Your task to perform on an android device: turn off location history Image 0: 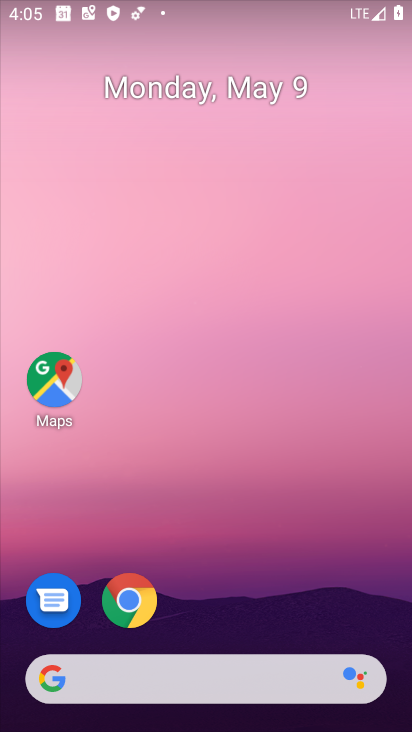
Step 0: drag from (313, 613) to (352, 8)
Your task to perform on an android device: turn off location history Image 1: 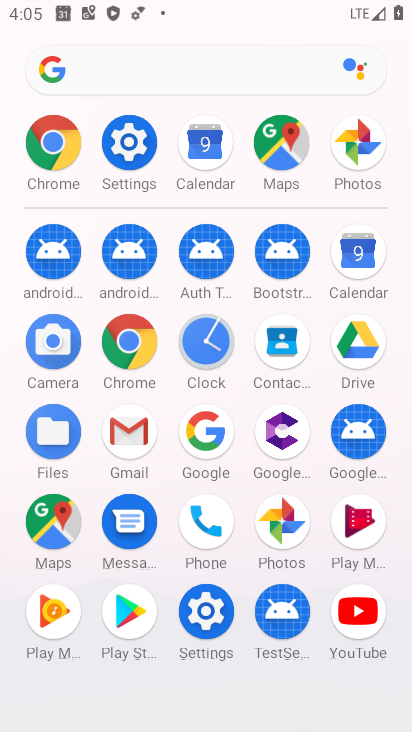
Step 1: click (215, 617)
Your task to perform on an android device: turn off location history Image 2: 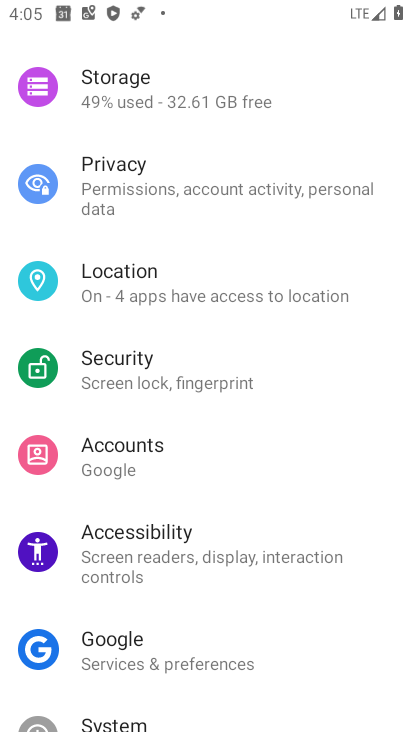
Step 2: click (199, 150)
Your task to perform on an android device: turn off location history Image 3: 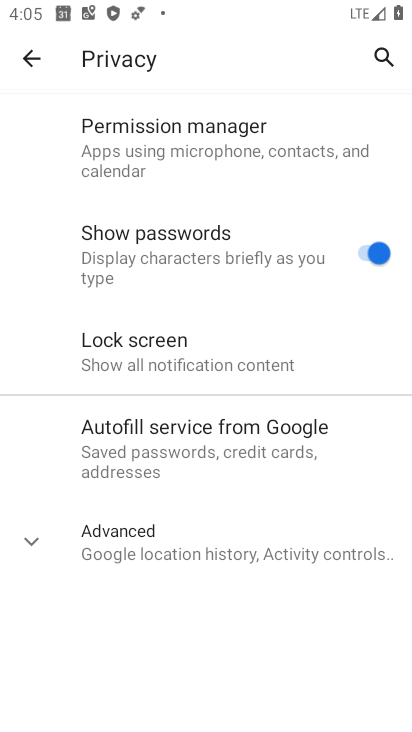
Step 3: press back button
Your task to perform on an android device: turn off location history Image 4: 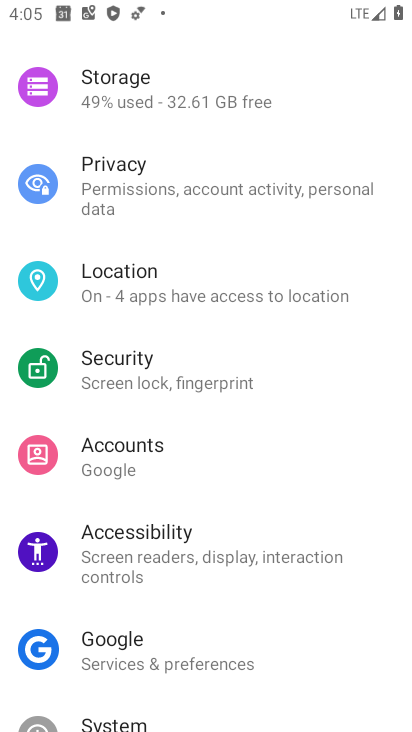
Step 4: click (155, 280)
Your task to perform on an android device: turn off location history Image 5: 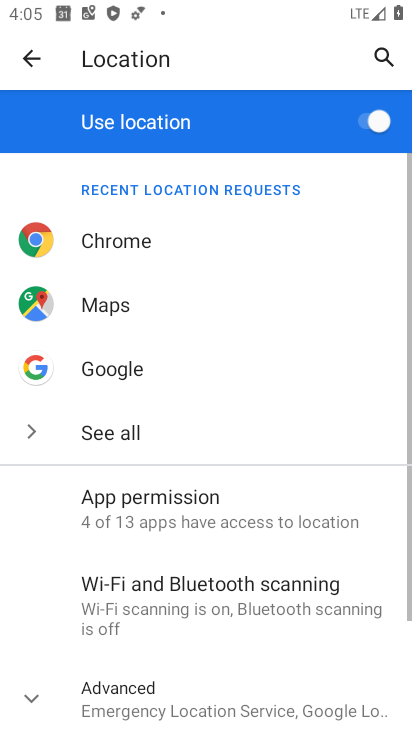
Step 5: drag from (254, 663) to (338, 261)
Your task to perform on an android device: turn off location history Image 6: 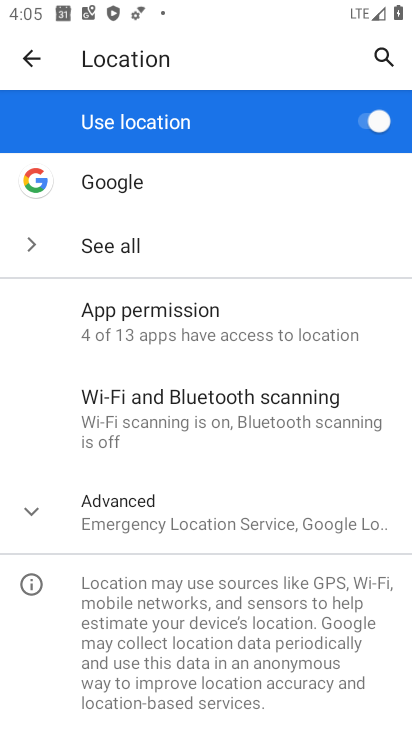
Step 6: click (269, 506)
Your task to perform on an android device: turn off location history Image 7: 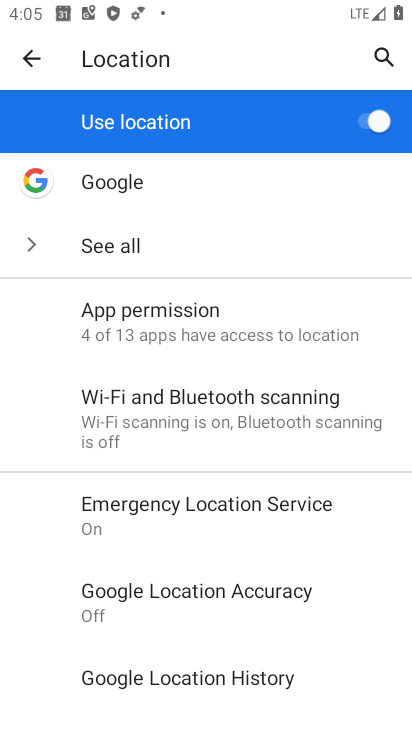
Step 7: click (288, 684)
Your task to perform on an android device: turn off location history Image 8: 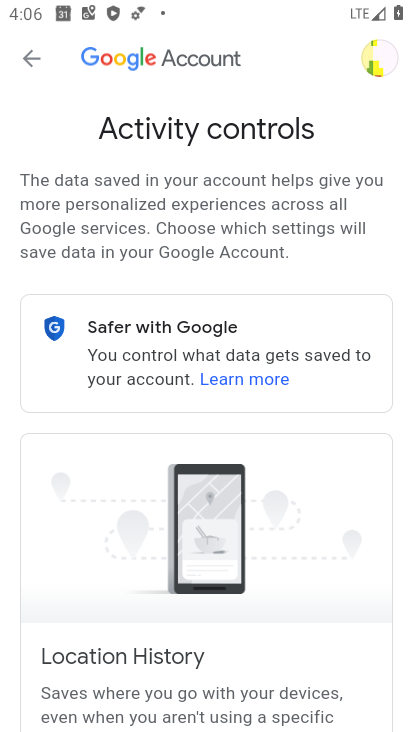
Step 8: task complete